Your task to perform on an android device: Open settings Image 0: 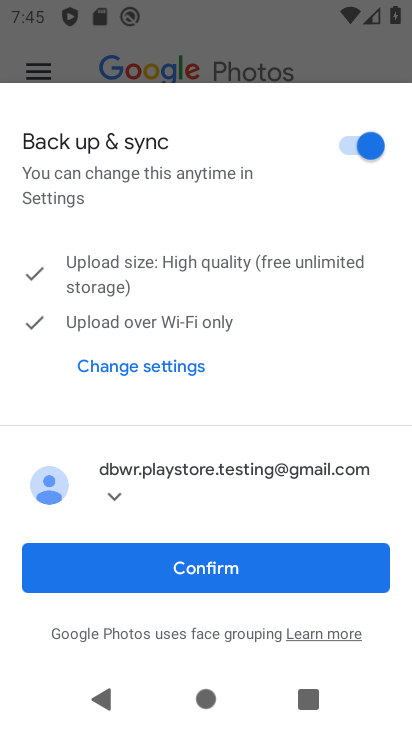
Step 0: press home button
Your task to perform on an android device: Open settings Image 1: 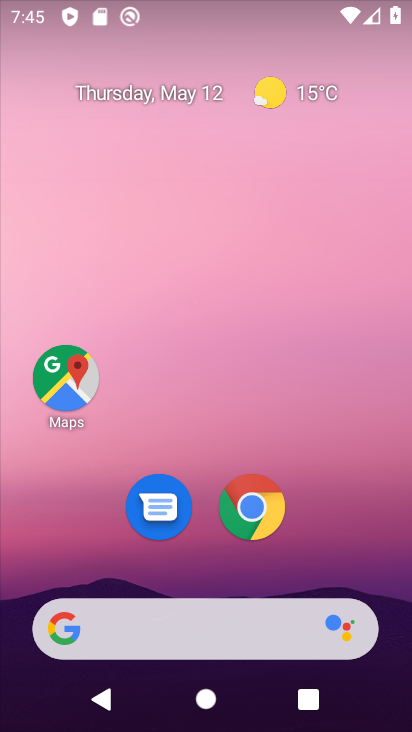
Step 1: drag from (319, 549) to (325, 0)
Your task to perform on an android device: Open settings Image 2: 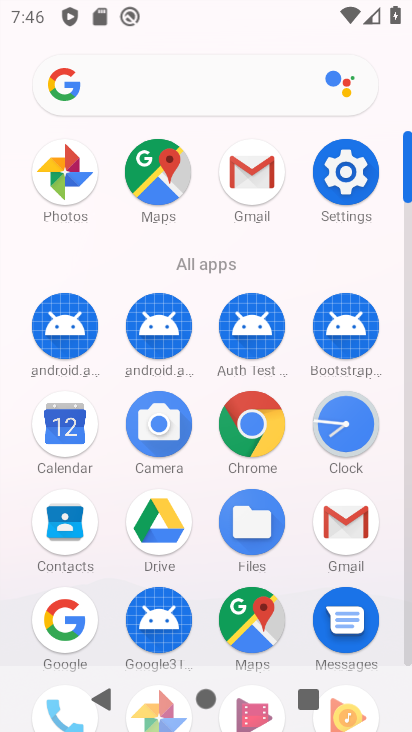
Step 2: drag from (296, 619) to (352, 203)
Your task to perform on an android device: Open settings Image 3: 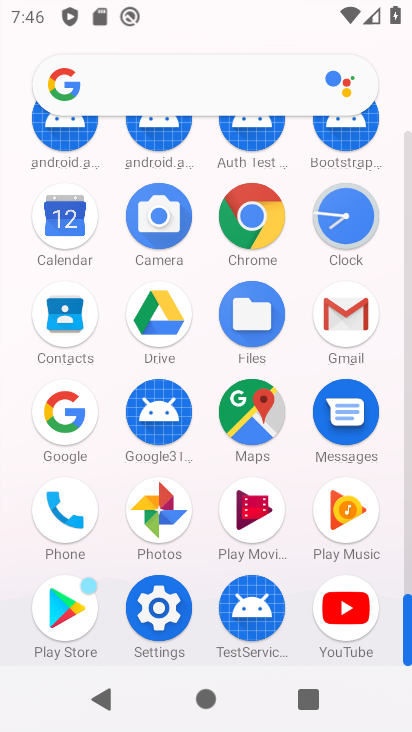
Step 3: click (162, 632)
Your task to perform on an android device: Open settings Image 4: 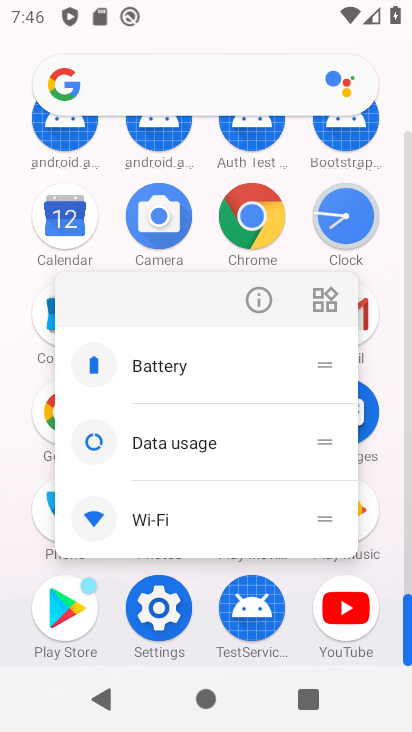
Step 4: click (161, 626)
Your task to perform on an android device: Open settings Image 5: 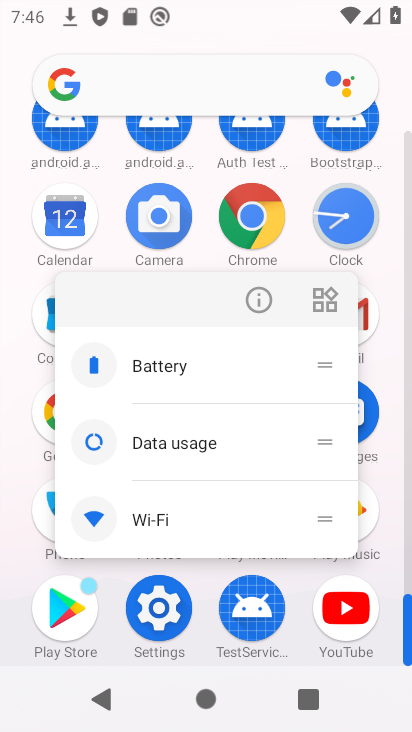
Step 5: click (156, 612)
Your task to perform on an android device: Open settings Image 6: 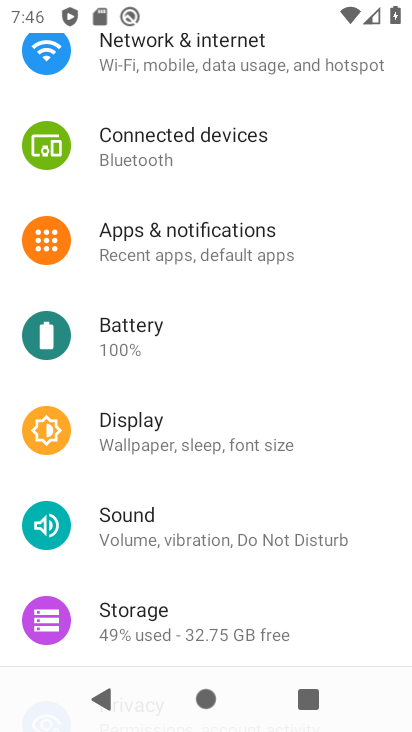
Step 6: task complete